Your task to perform on an android device: turn off notifications settings in the gmail app Image 0: 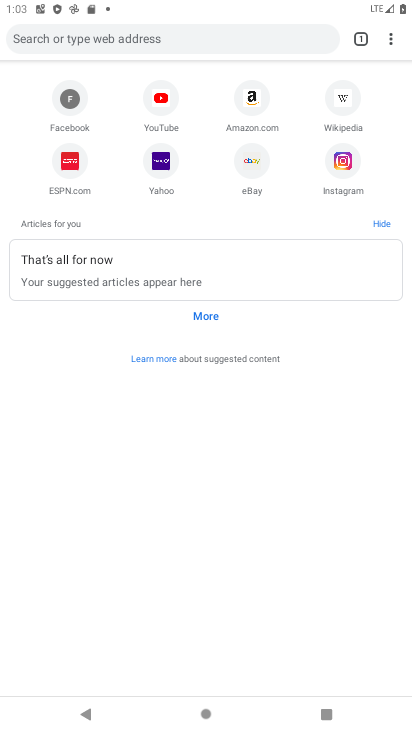
Step 0: press home button
Your task to perform on an android device: turn off notifications settings in the gmail app Image 1: 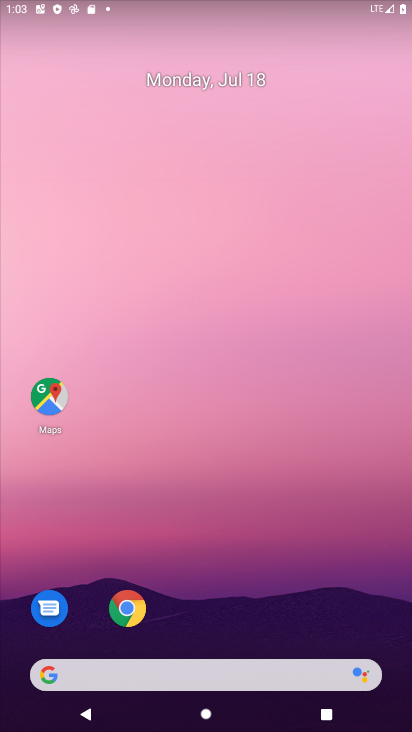
Step 1: drag from (381, 589) to (172, 1)
Your task to perform on an android device: turn off notifications settings in the gmail app Image 2: 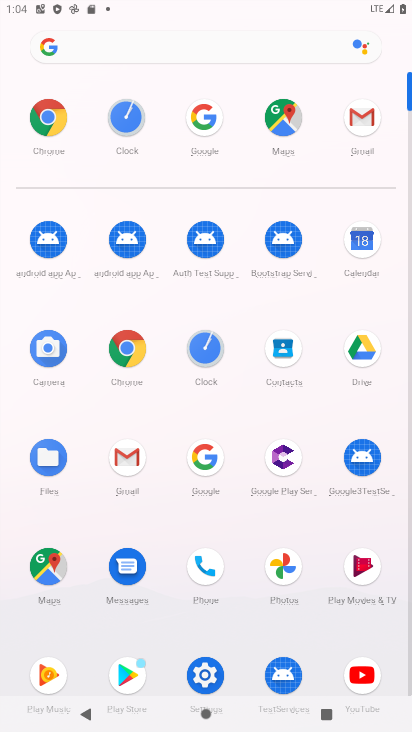
Step 2: click (349, 132)
Your task to perform on an android device: turn off notifications settings in the gmail app Image 3: 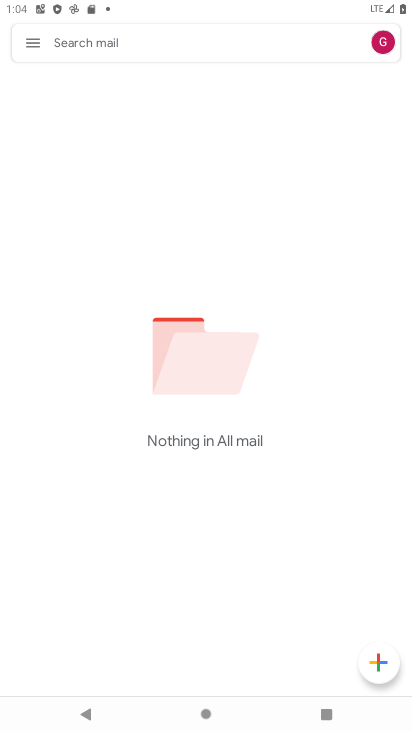
Step 3: click (20, 38)
Your task to perform on an android device: turn off notifications settings in the gmail app Image 4: 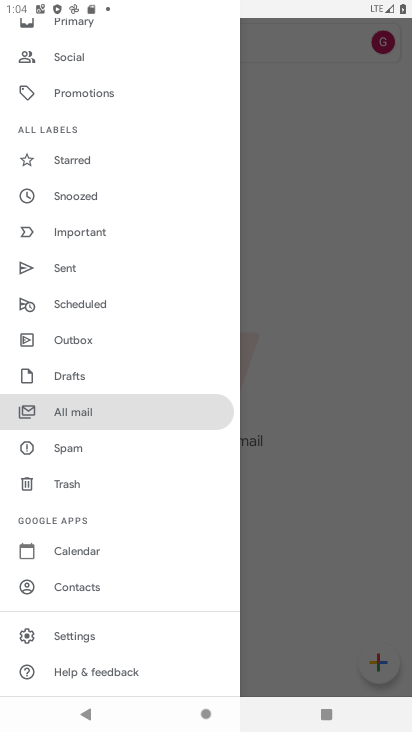
Step 4: click (115, 632)
Your task to perform on an android device: turn off notifications settings in the gmail app Image 5: 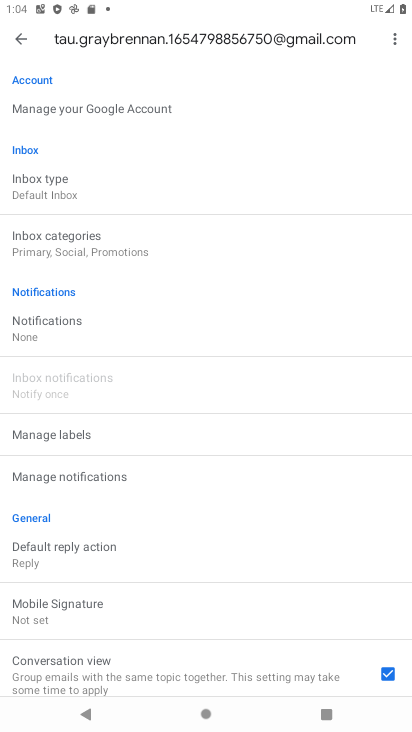
Step 5: click (73, 326)
Your task to perform on an android device: turn off notifications settings in the gmail app Image 6: 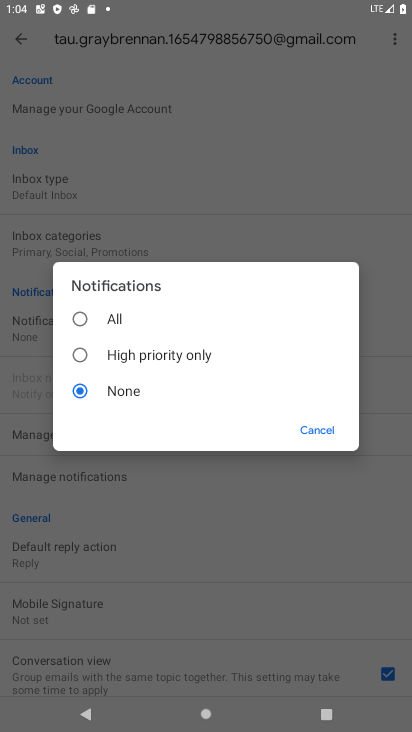
Step 6: task complete